Your task to perform on an android device: turn on the 24-hour format for clock Image 0: 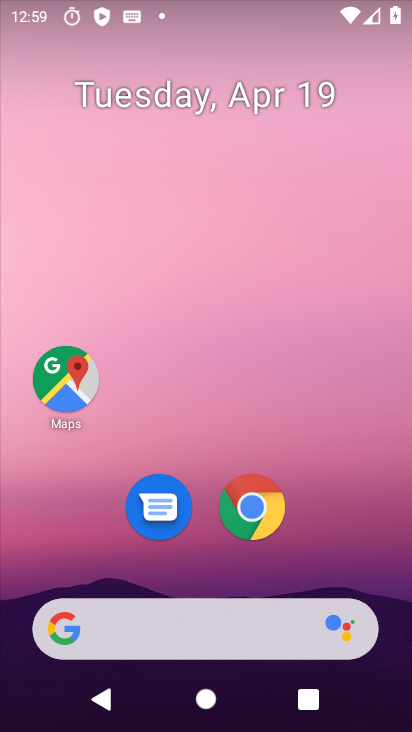
Step 0: drag from (210, 561) to (225, 67)
Your task to perform on an android device: turn on the 24-hour format for clock Image 1: 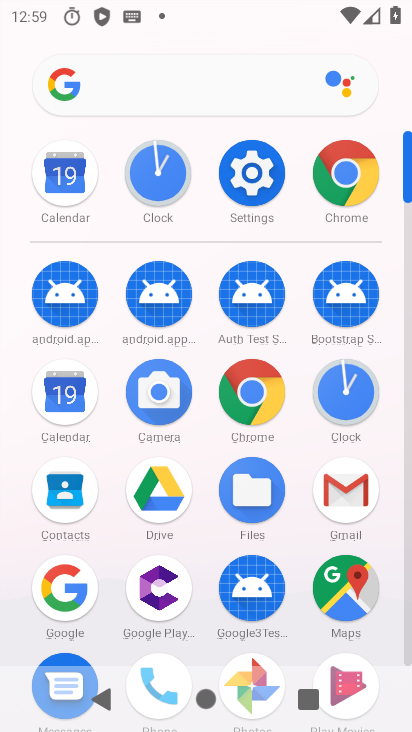
Step 1: click (344, 387)
Your task to perform on an android device: turn on the 24-hour format for clock Image 2: 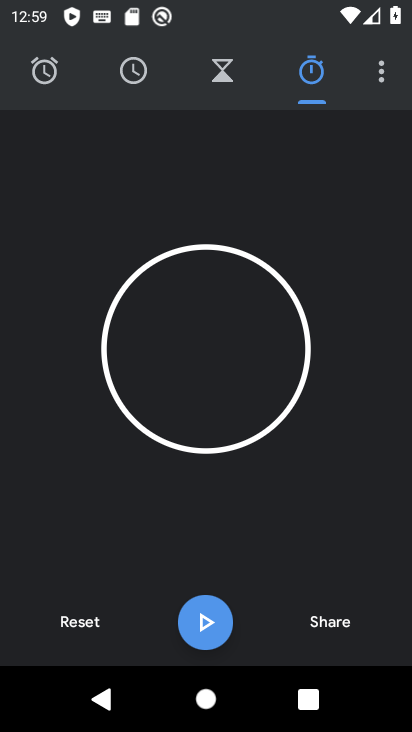
Step 2: click (375, 70)
Your task to perform on an android device: turn on the 24-hour format for clock Image 3: 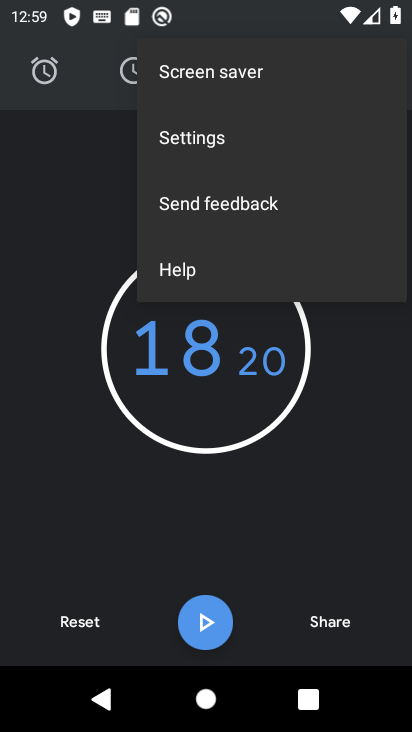
Step 3: click (239, 134)
Your task to perform on an android device: turn on the 24-hour format for clock Image 4: 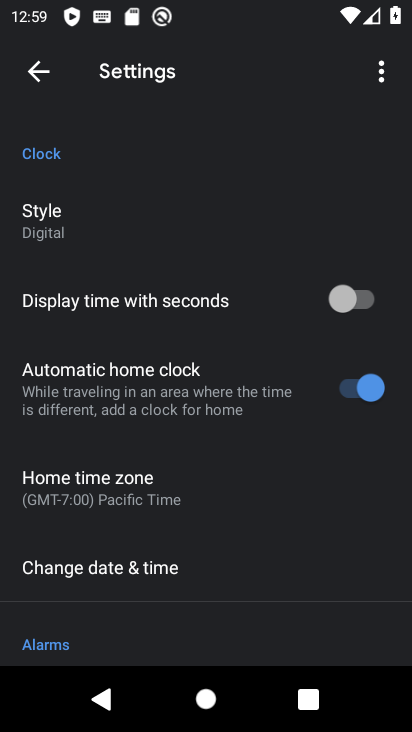
Step 4: click (197, 565)
Your task to perform on an android device: turn on the 24-hour format for clock Image 5: 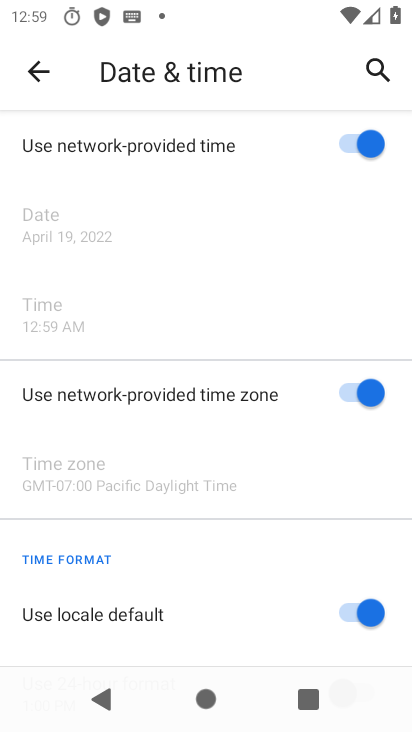
Step 5: drag from (202, 590) to (235, 152)
Your task to perform on an android device: turn on the 24-hour format for clock Image 6: 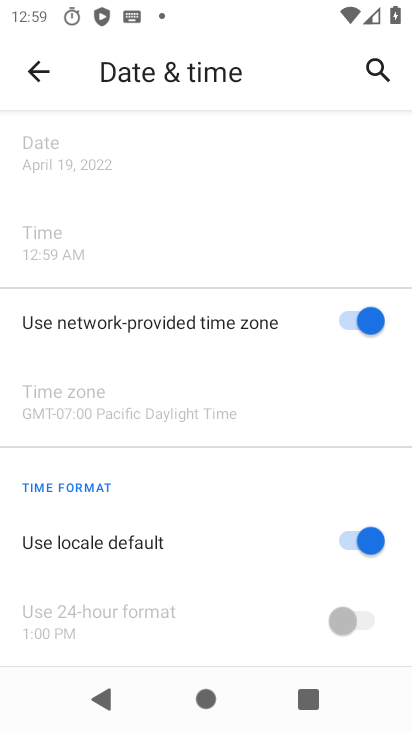
Step 6: click (345, 538)
Your task to perform on an android device: turn on the 24-hour format for clock Image 7: 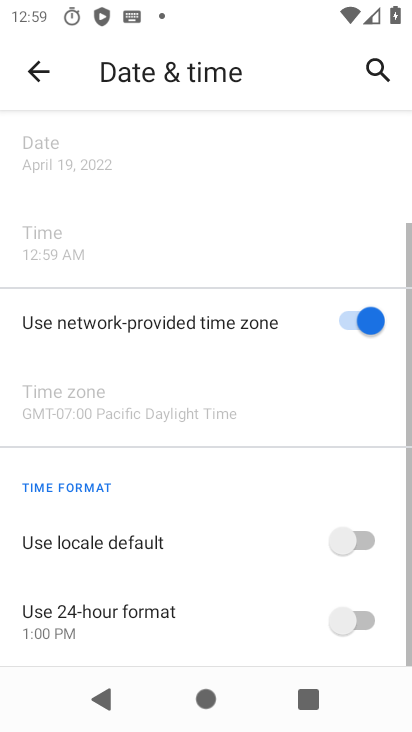
Step 7: click (359, 620)
Your task to perform on an android device: turn on the 24-hour format for clock Image 8: 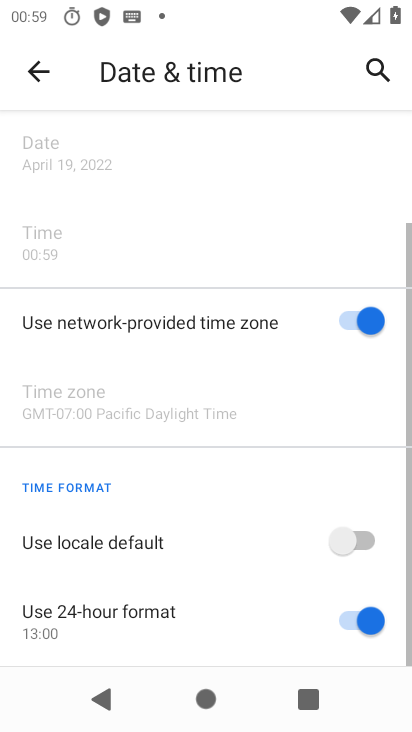
Step 8: task complete